Your task to perform on an android device: Show me the alarms in the clock app Image 0: 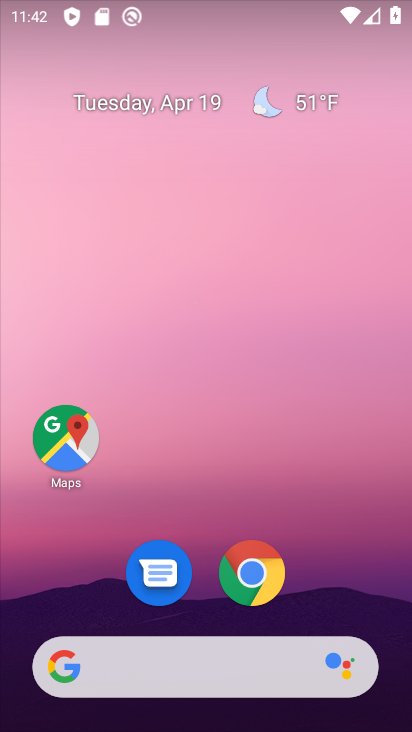
Step 0: drag from (322, 570) to (279, 172)
Your task to perform on an android device: Show me the alarms in the clock app Image 1: 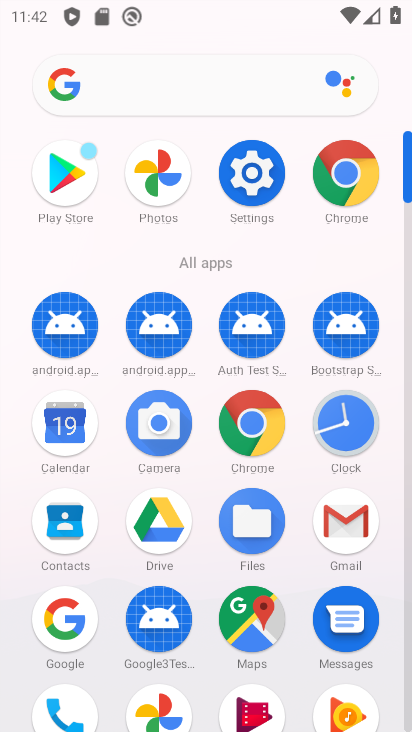
Step 1: click (342, 442)
Your task to perform on an android device: Show me the alarms in the clock app Image 2: 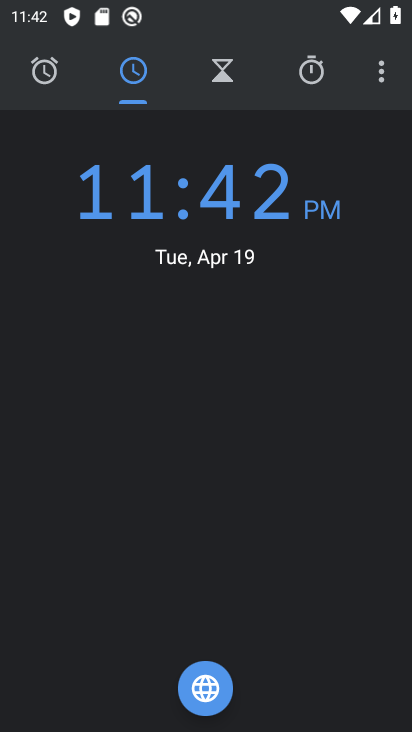
Step 2: click (49, 66)
Your task to perform on an android device: Show me the alarms in the clock app Image 3: 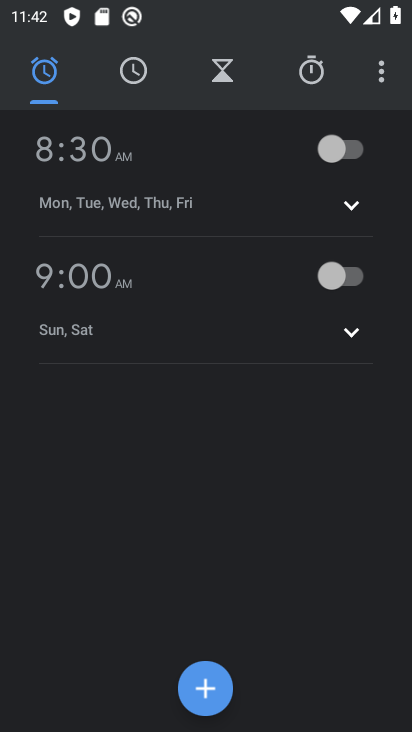
Step 3: task complete